Your task to perform on an android device: open a bookmark in the chrome app Image 0: 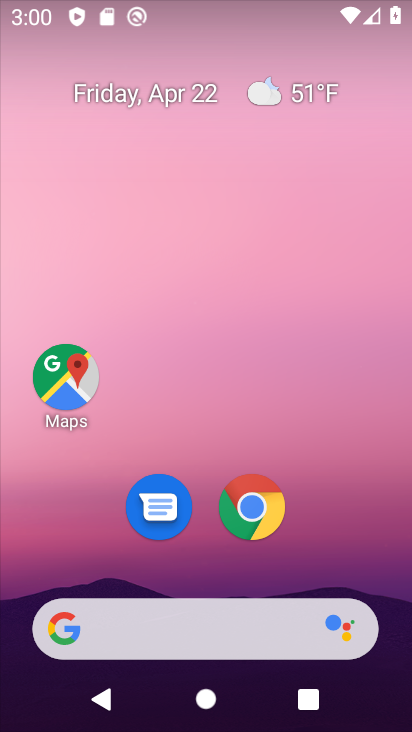
Step 0: click (246, 520)
Your task to perform on an android device: open a bookmark in the chrome app Image 1: 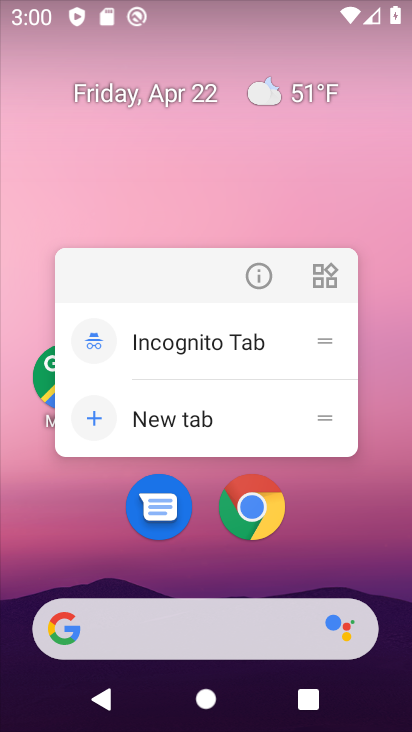
Step 1: click (260, 491)
Your task to perform on an android device: open a bookmark in the chrome app Image 2: 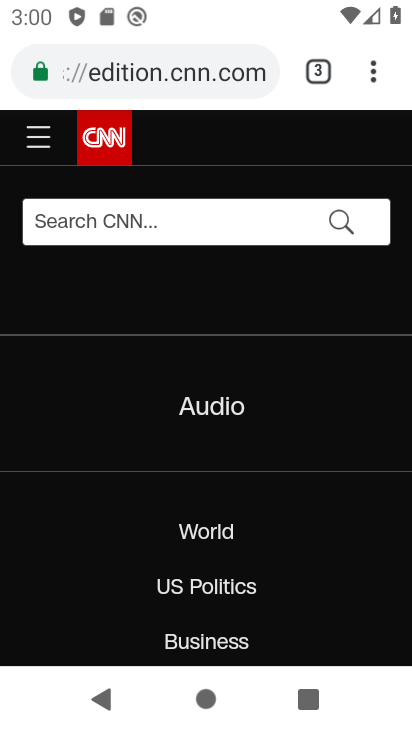
Step 2: task complete